Your task to perform on an android device: Open Google Image 0: 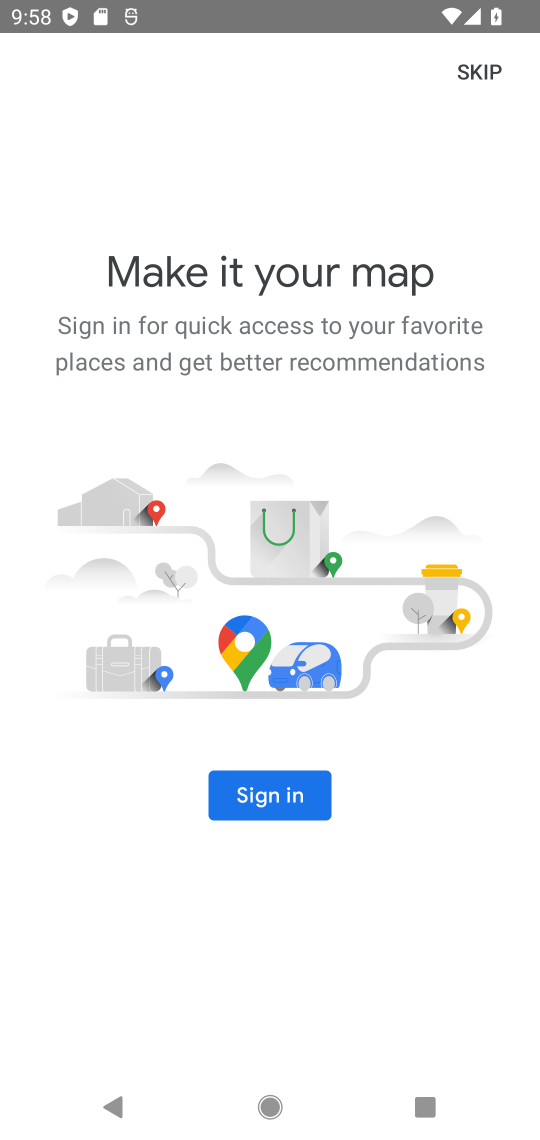
Step 0: press home button
Your task to perform on an android device: Open Google Image 1: 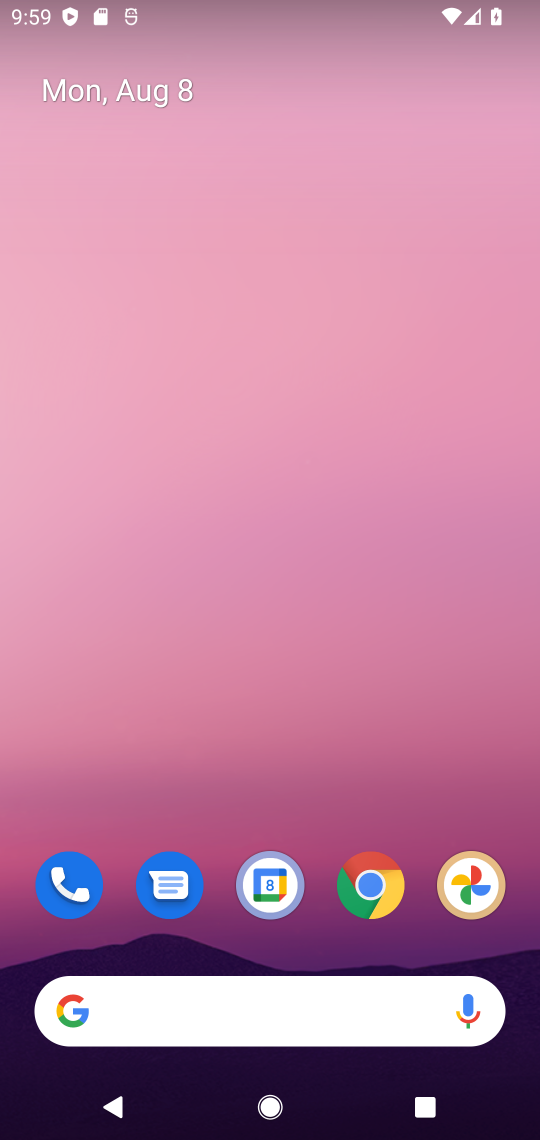
Step 1: drag from (198, 834) to (352, 181)
Your task to perform on an android device: Open Google Image 2: 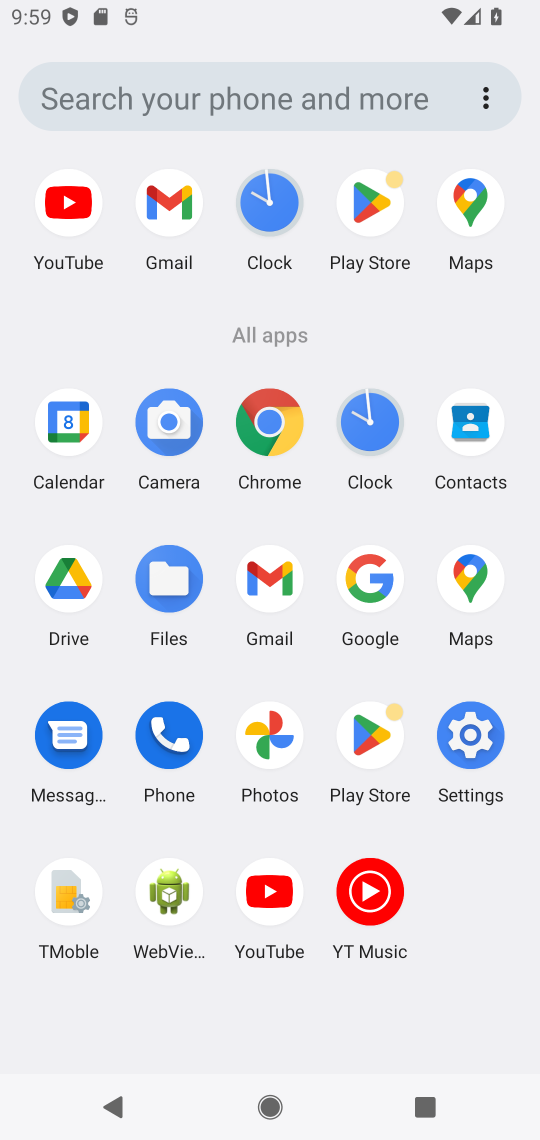
Step 2: click (373, 576)
Your task to perform on an android device: Open Google Image 3: 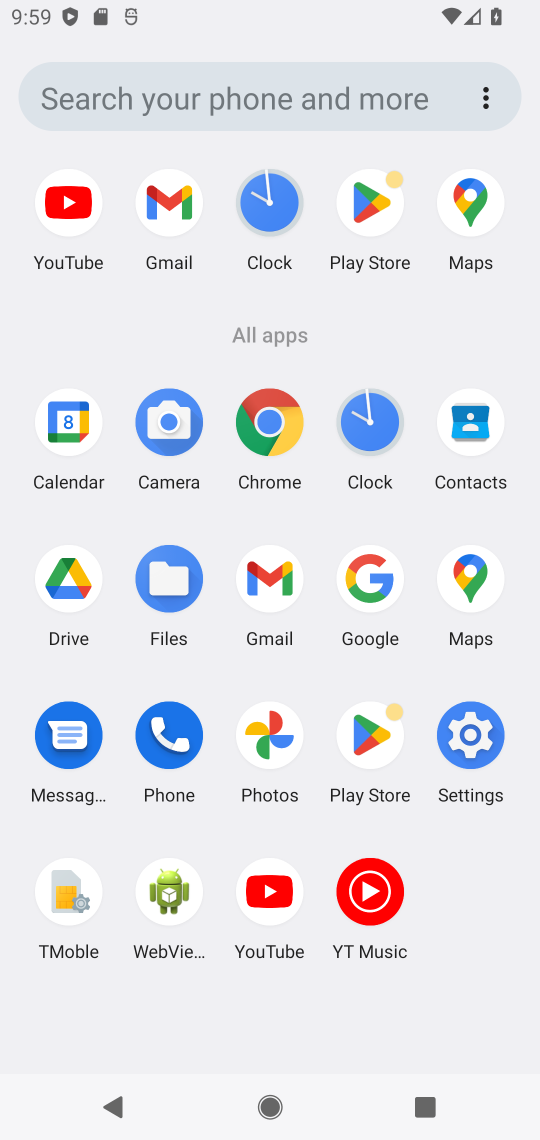
Step 3: click (373, 576)
Your task to perform on an android device: Open Google Image 4: 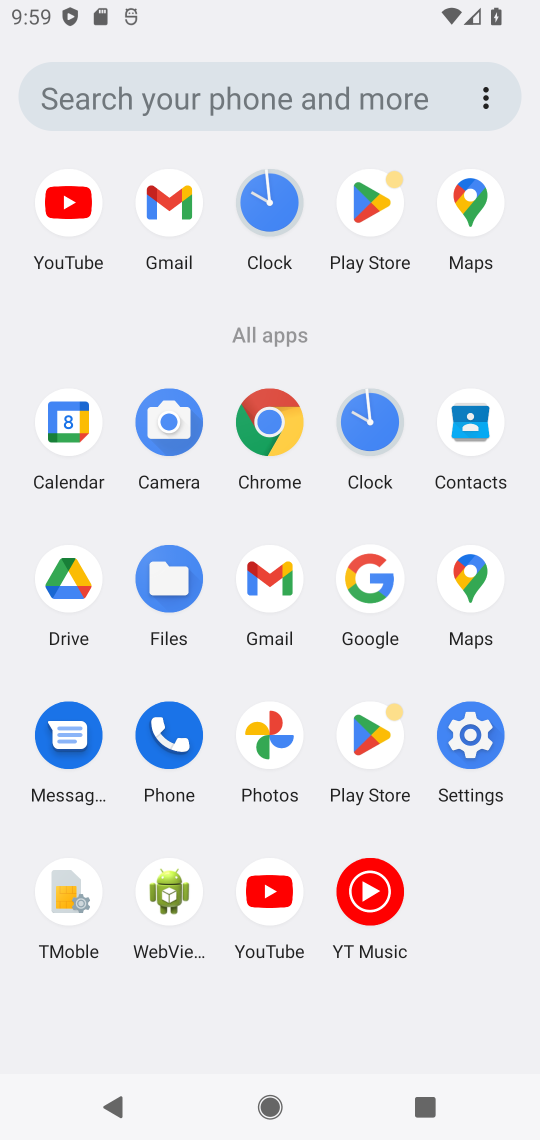
Step 4: click (373, 576)
Your task to perform on an android device: Open Google Image 5: 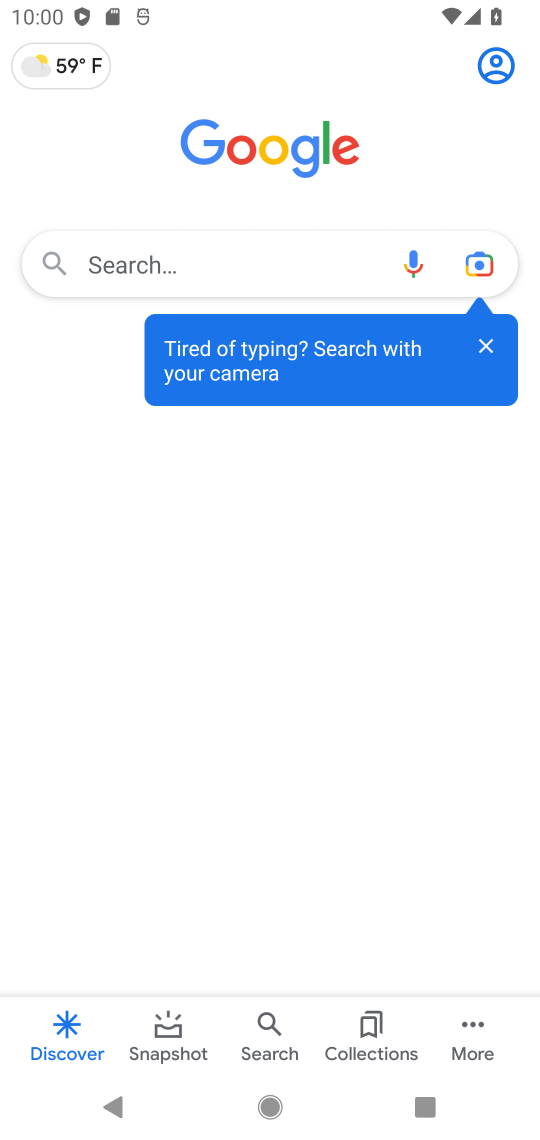
Step 5: task complete